Your task to perform on an android device: Go to notification settings Image 0: 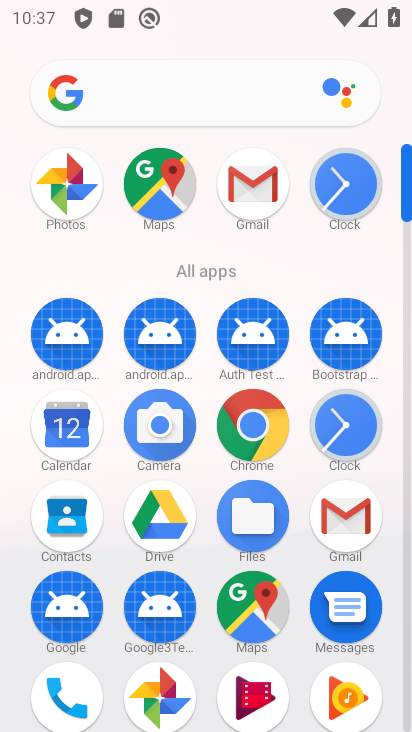
Step 0: drag from (203, 441) to (240, 82)
Your task to perform on an android device: Go to notification settings Image 1: 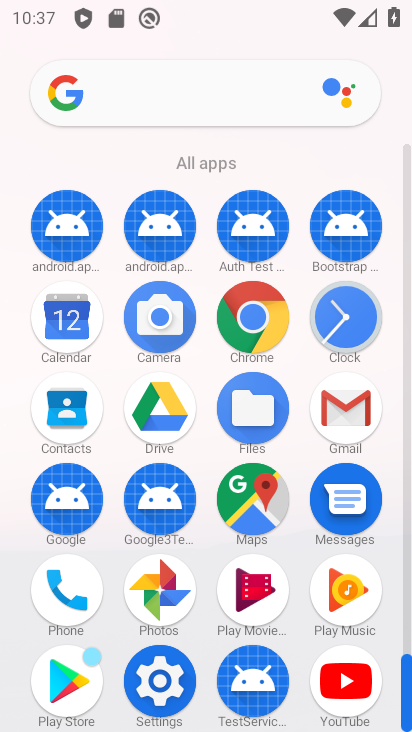
Step 1: click (177, 676)
Your task to perform on an android device: Go to notification settings Image 2: 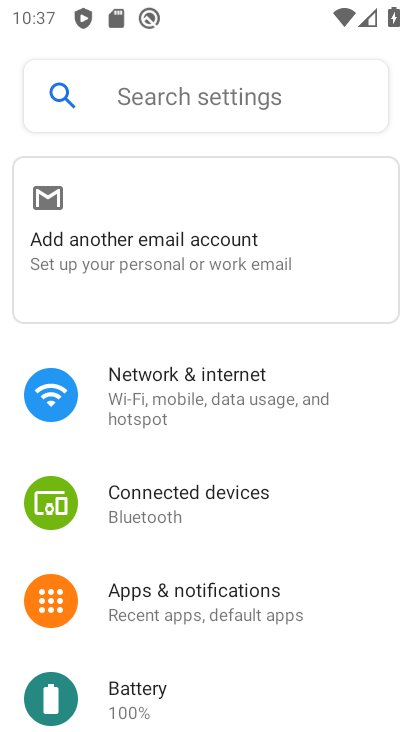
Step 2: click (210, 580)
Your task to perform on an android device: Go to notification settings Image 3: 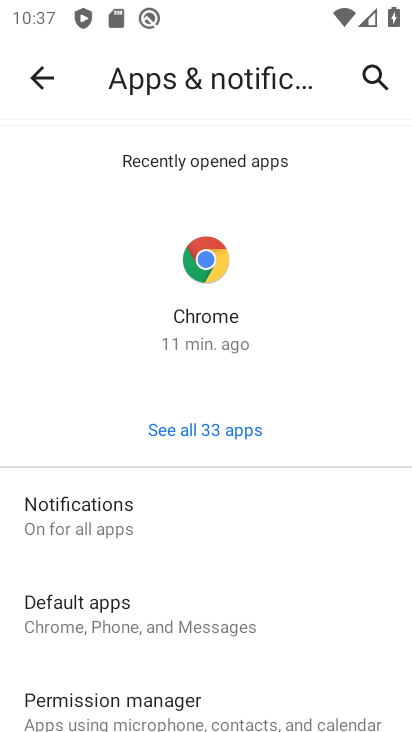
Step 3: click (135, 534)
Your task to perform on an android device: Go to notification settings Image 4: 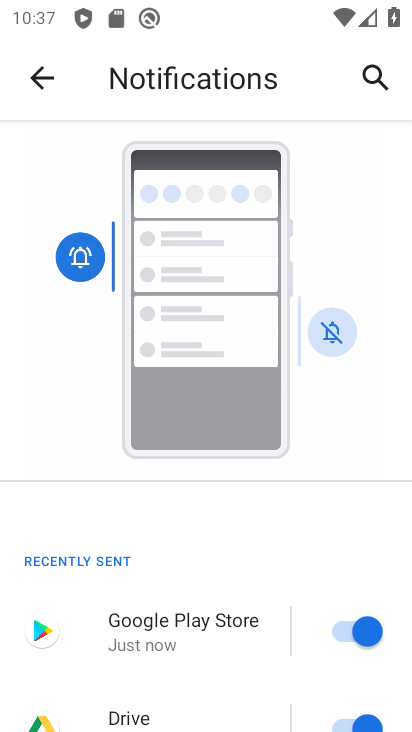
Step 4: task complete